Your task to perform on an android device: check out phone information Image 0: 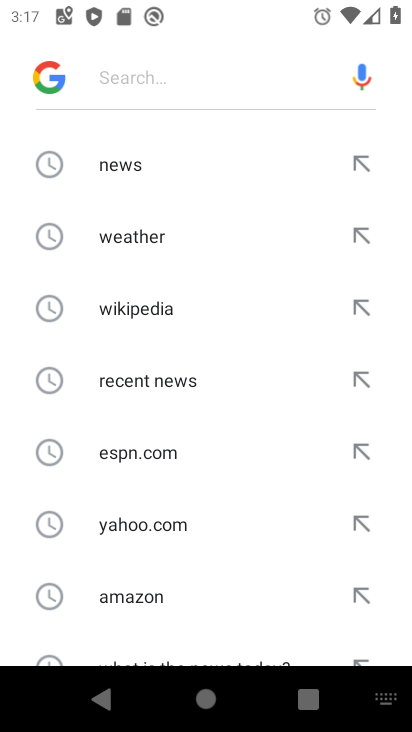
Step 0: press home button
Your task to perform on an android device: check out phone information Image 1: 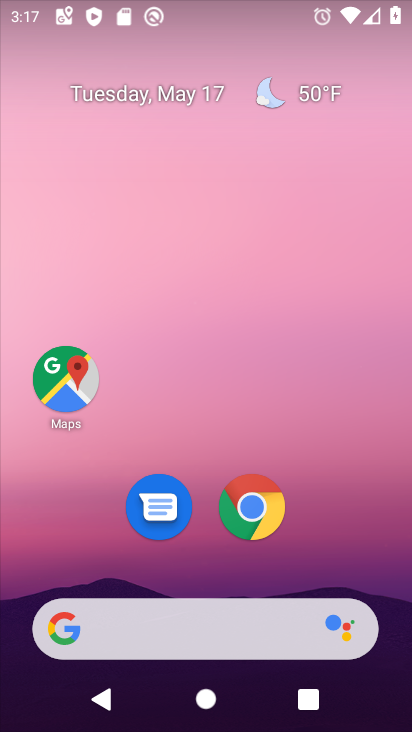
Step 1: drag from (271, 297) to (204, 77)
Your task to perform on an android device: check out phone information Image 2: 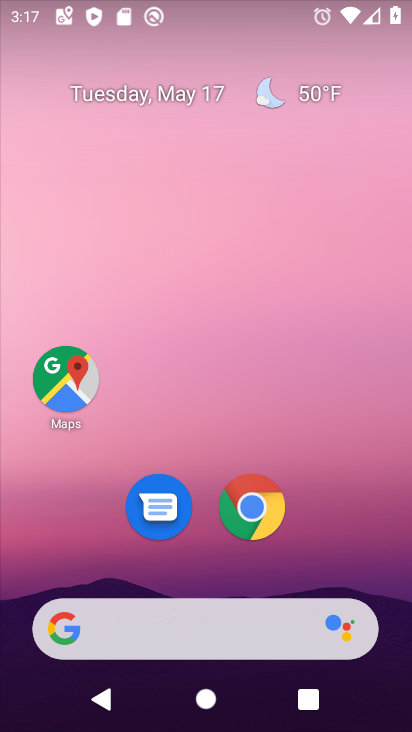
Step 2: drag from (343, 559) to (196, 23)
Your task to perform on an android device: check out phone information Image 3: 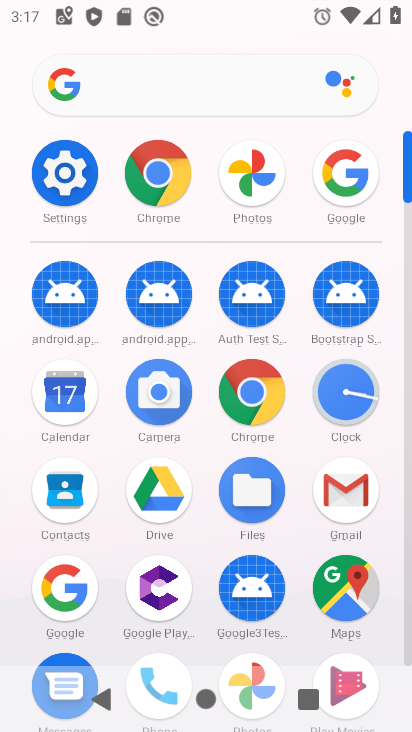
Step 3: click (62, 181)
Your task to perform on an android device: check out phone information Image 4: 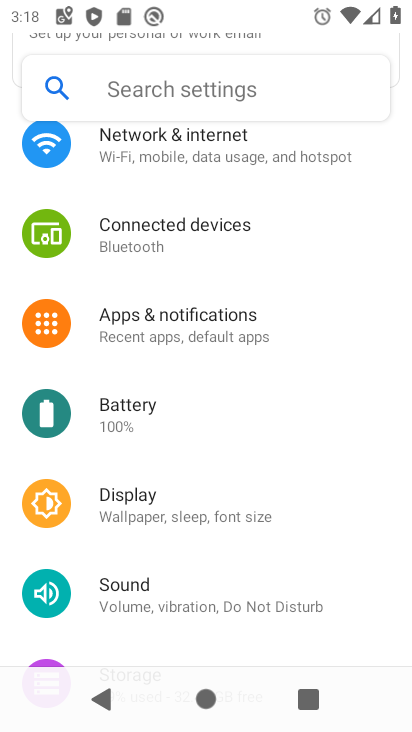
Step 4: drag from (265, 539) to (222, 75)
Your task to perform on an android device: check out phone information Image 5: 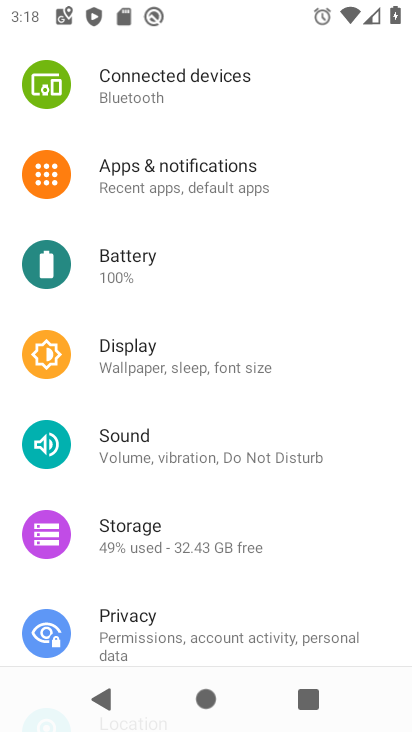
Step 5: drag from (237, 485) to (220, 105)
Your task to perform on an android device: check out phone information Image 6: 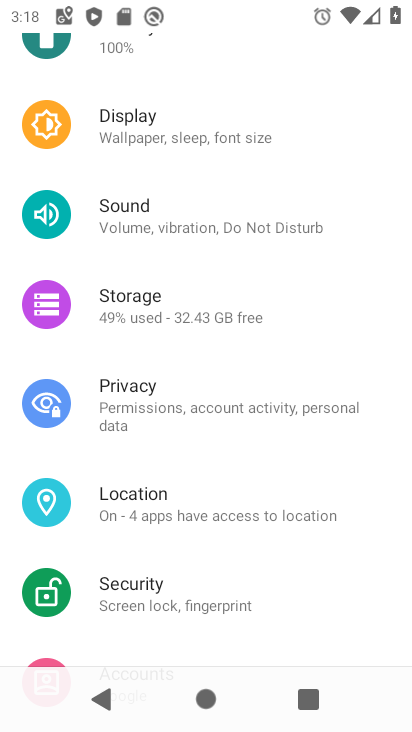
Step 6: drag from (252, 572) to (227, 177)
Your task to perform on an android device: check out phone information Image 7: 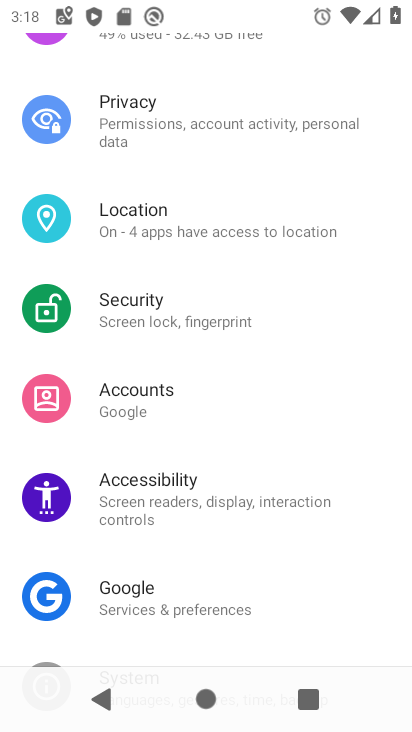
Step 7: drag from (220, 563) to (201, 158)
Your task to perform on an android device: check out phone information Image 8: 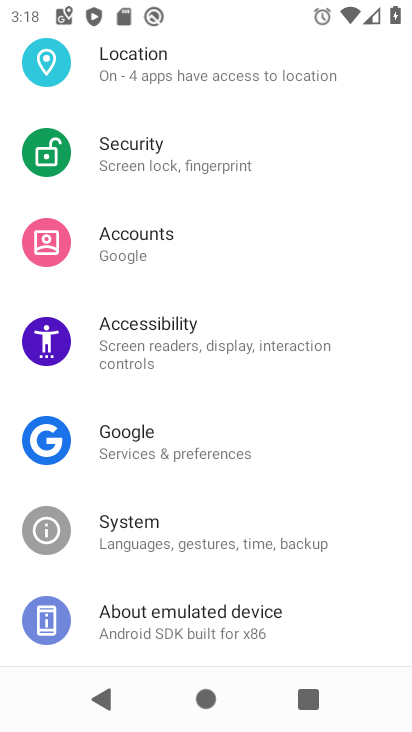
Step 8: click (214, 608)
Your task to perform on an android device: check out phone information Image 9: 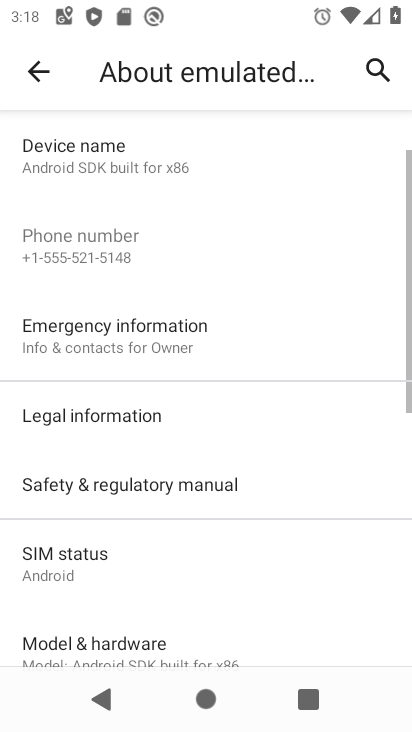
Step 9: task complete